Your task to perform on an android device: Open Youtube and go to "Your channel" Image 0: 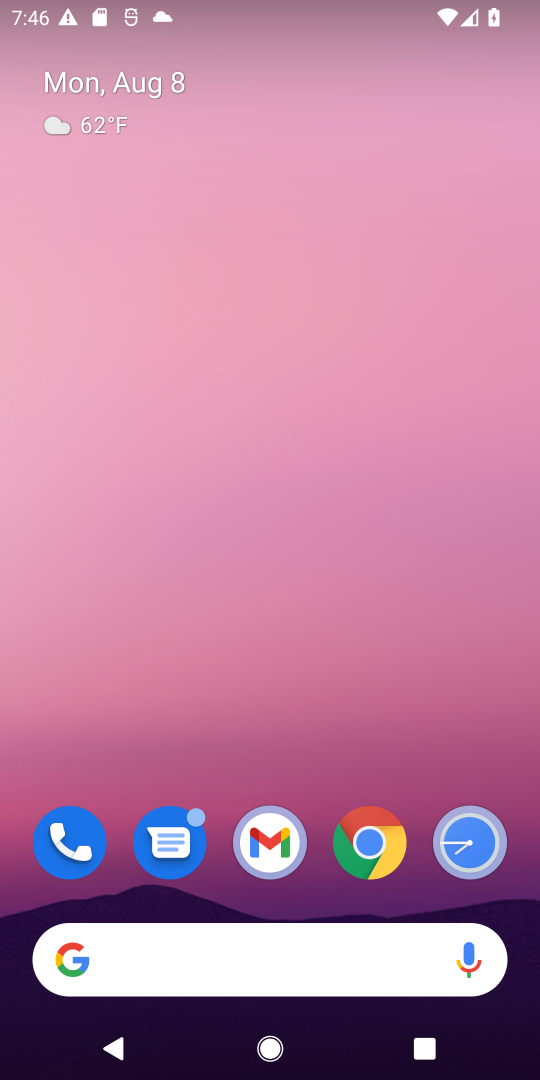
Step 0: drag from (253, 751) to (249, 110)
Your task to perform on an android device: Open Youtube and go to "Your channel" Image 1: 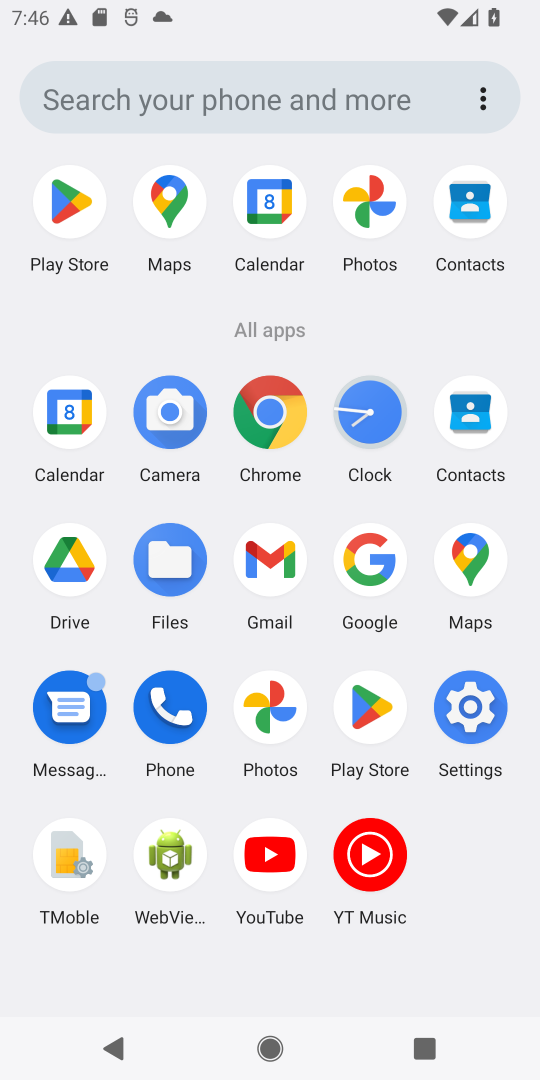
Step 1: click (280, 858)
Your task to perform on an android device: Open Youtube and go to "Your channel" Image 2: 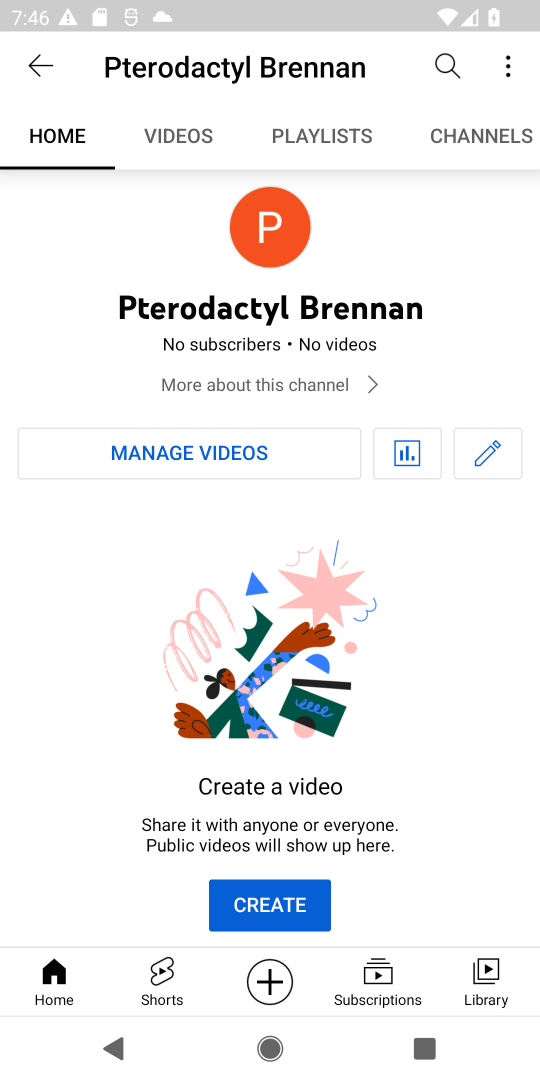
Step 2: task complete